Your task to perform on an android device: Set the phone to "Do not disturb". Image 0: 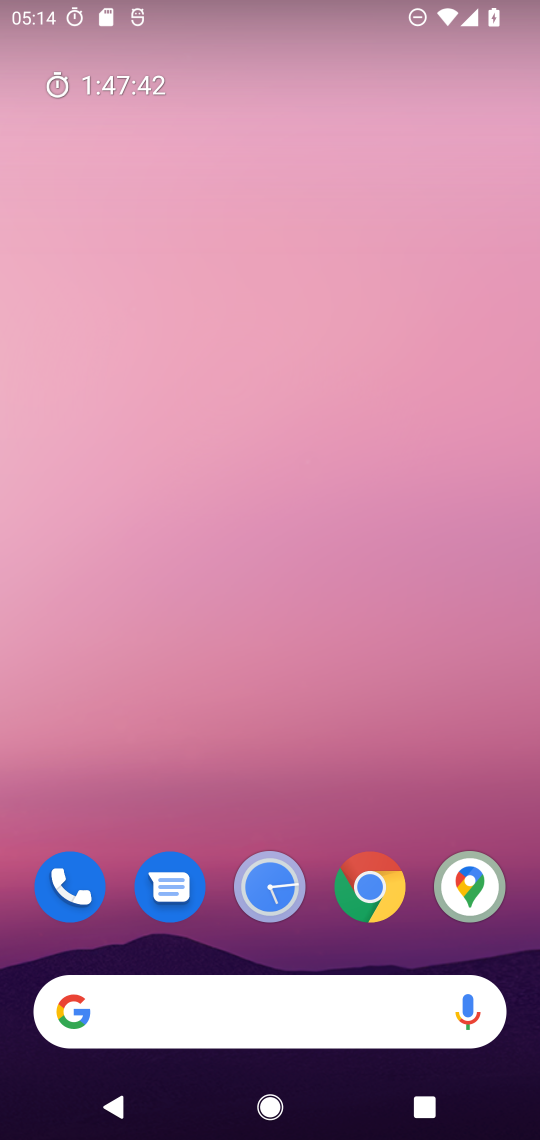
Step 0: press home button
Your task to perform on an android device: Set the phone to "Do not disturb". Image 1: 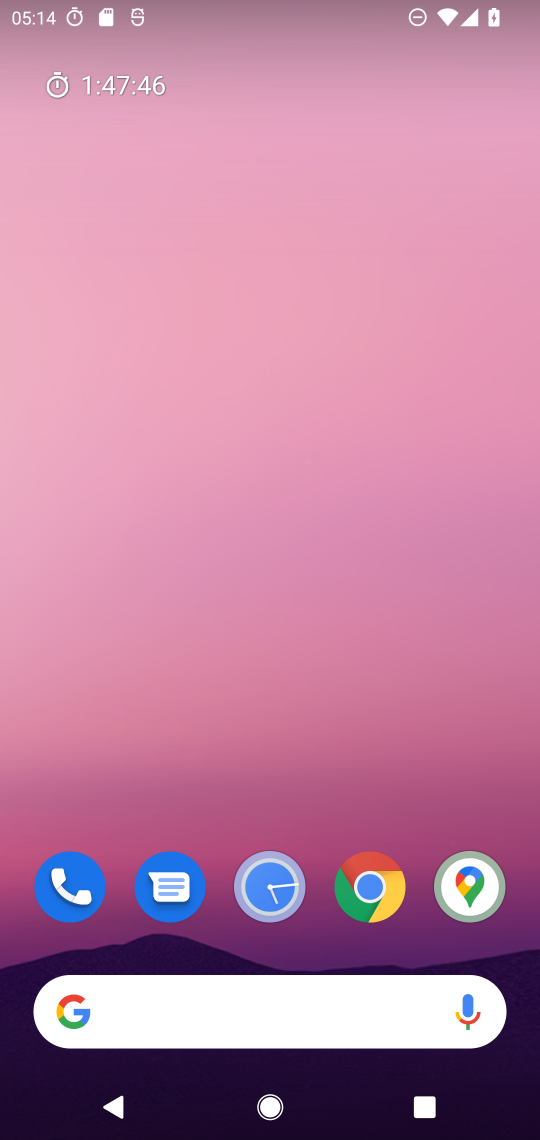
Step 1: drag from (416, 814) to (432, 278)
Your task to perform on an android device: Set the phone to "Do not disturb". Image 2: 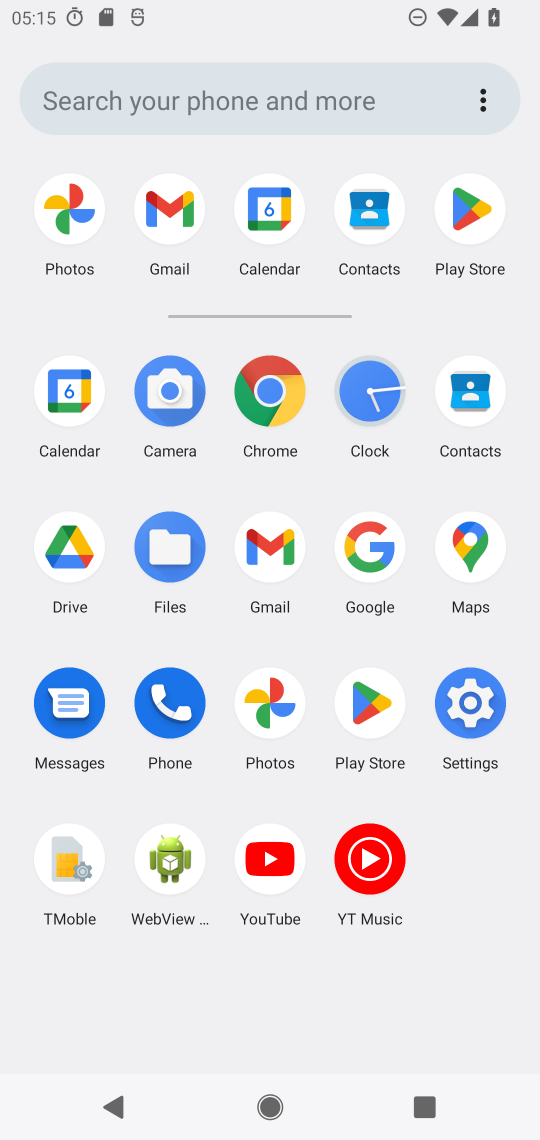
Step 2: click (464, 710)
Your task to perform on an android device: Set the phone to "Do not disturb". Image 3: 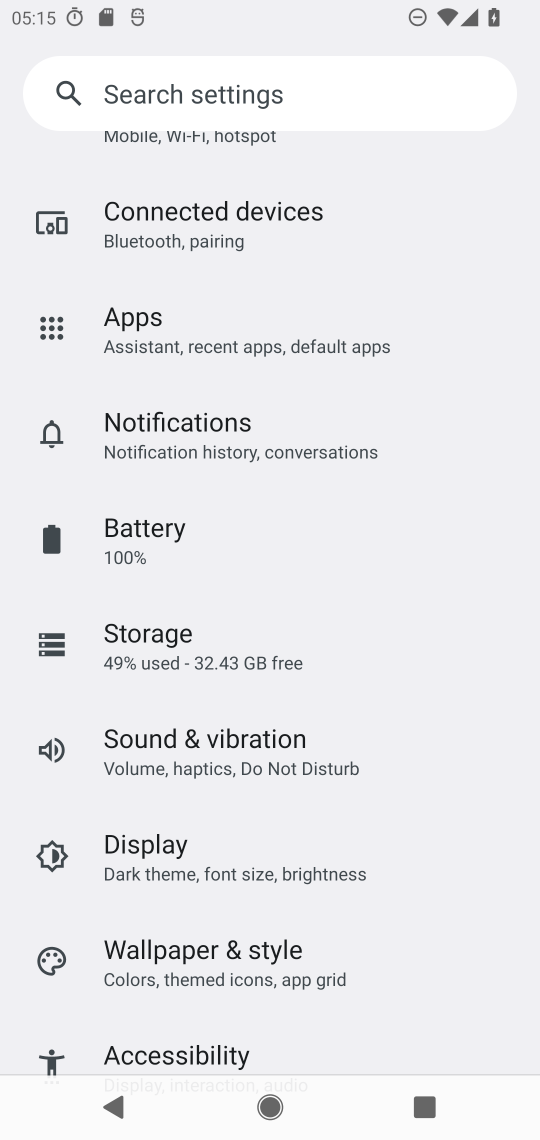
Step 3: drag from (453, 553) to (441, 765)
Your task to perform on an android device: Set the phone to "Do not disturb". Image 4: 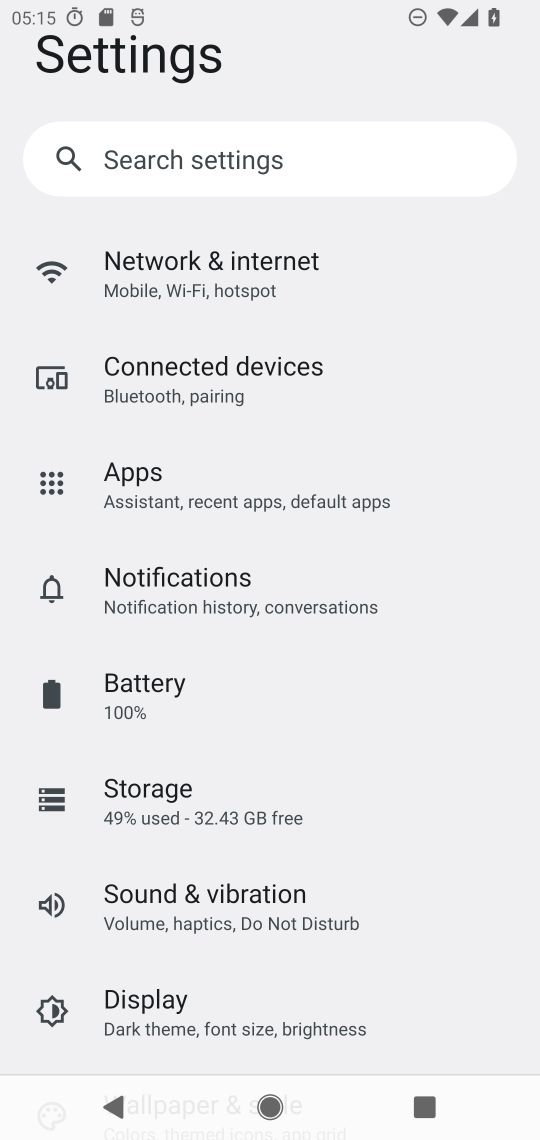
Step 4: drag from (454, 546) to (443, 695)
Your task to perform on an android device: Set the phone to "Do not disturb". Image 5: 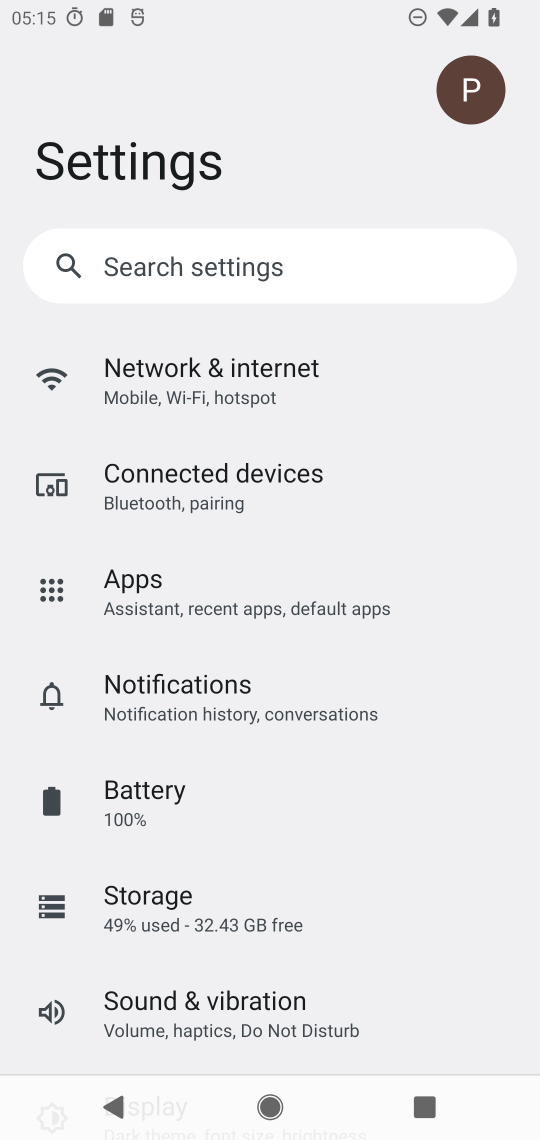
Step 5: drag from (427, 813) to (440, 677)
Your task to perform on an android device: Set the phone to "Do not disturb". Image 6: 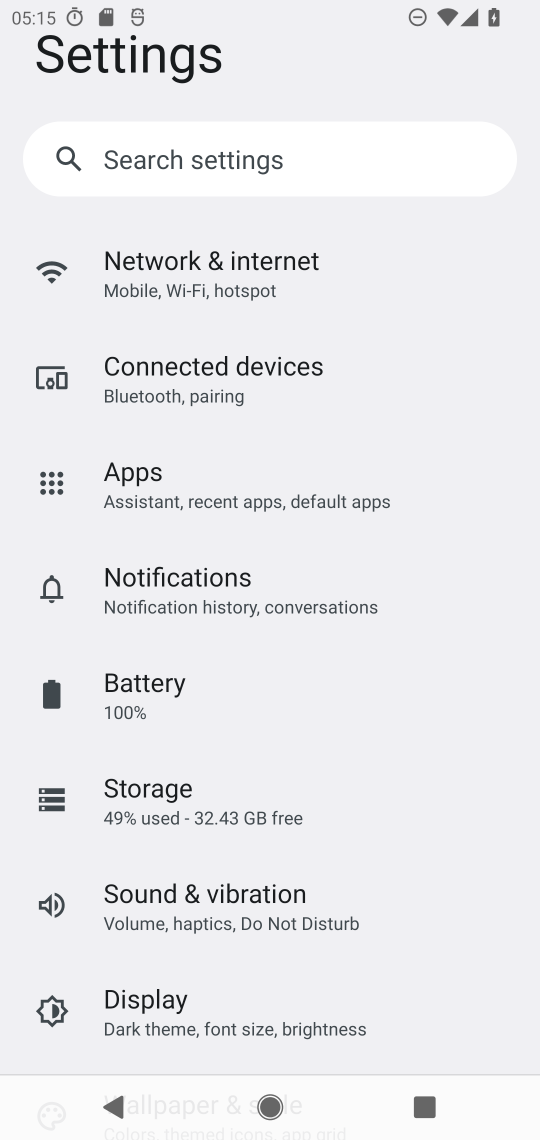
Step 6: drag from (437, 866) to (457, 732)
Your task to perform on an android device: Set the phone to "Do not disturb". Image 7: 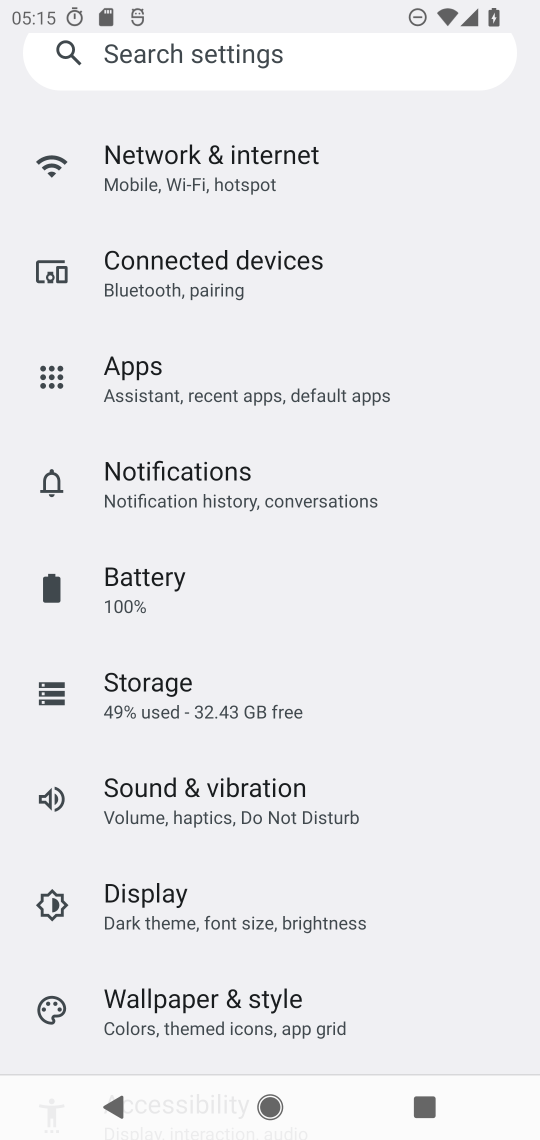
Step 7: drag from (444, 906) to (459, 706)
Your task to perform on an android device: Set the phone to "Do not disturb". Image 8: 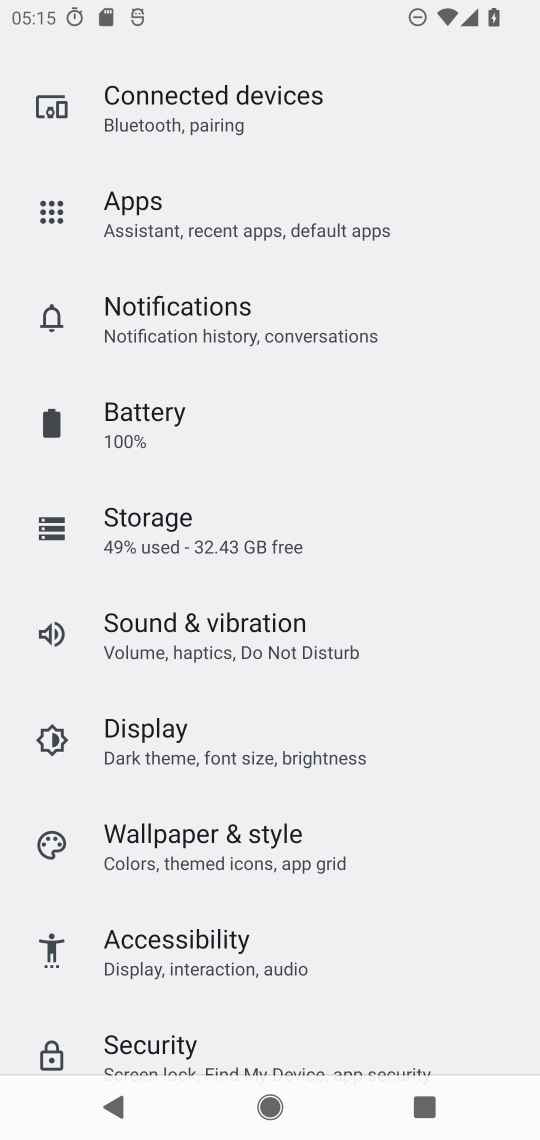
Step 8: drag from (447, 922) to (464, 740)
Your task to perform on an android device: Set the phone to "Do not disturb". Image 9: 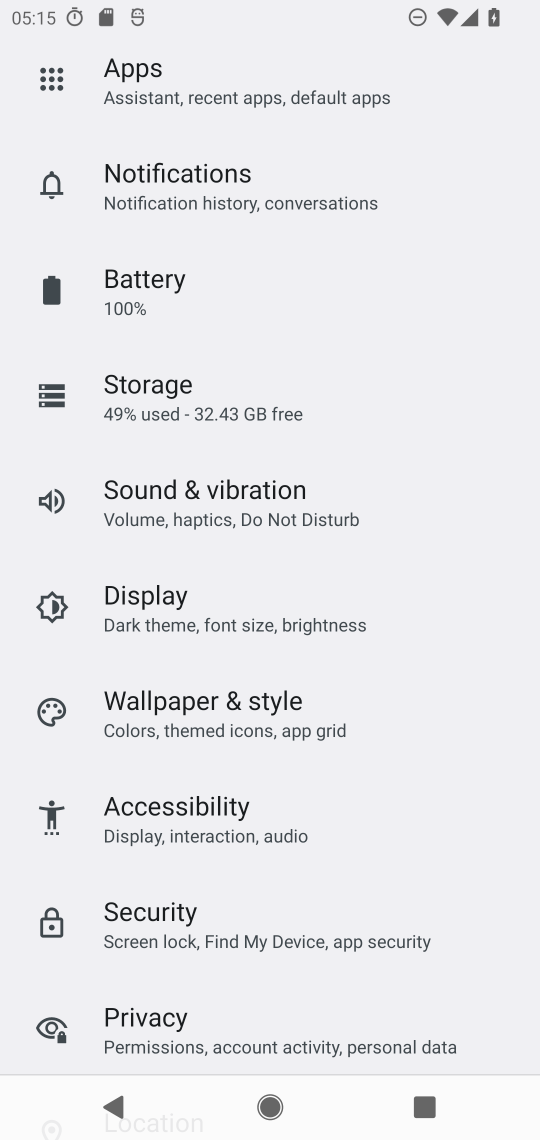
Step 9: click (399, 496)
Your task to perform on an android device: Set the phone to "Do not disturb". Image 10: 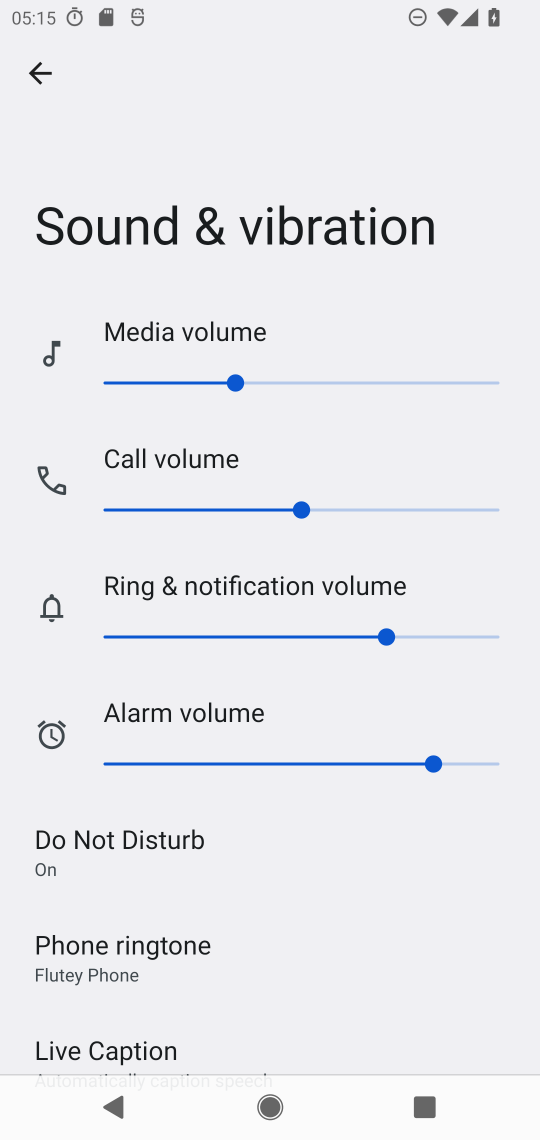
Step 10: task complete